Your task to perform on an android device: turn on location history Image 0: 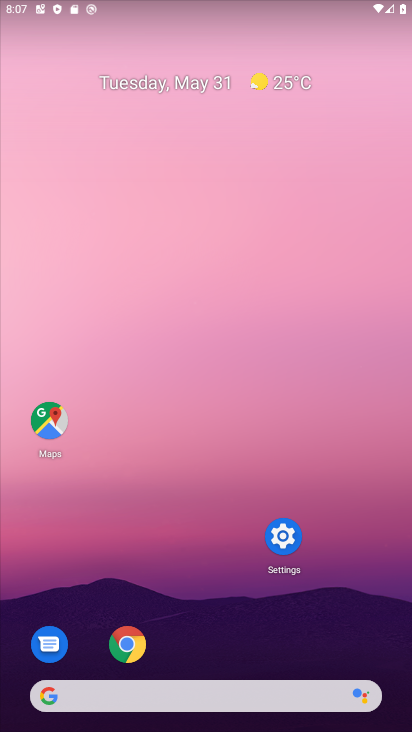
Step 0: click (277, 538)
Your task to perform on an android device: turn on location history Image 1: 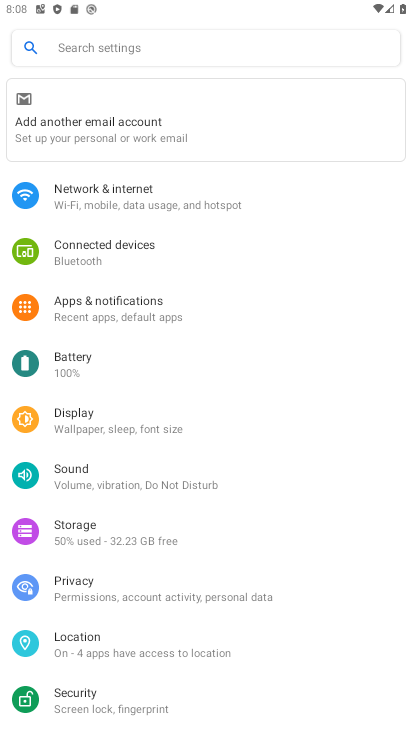
Step 1: click (173, 46)
Your task to perform on an android device: turn on location history Image 2: 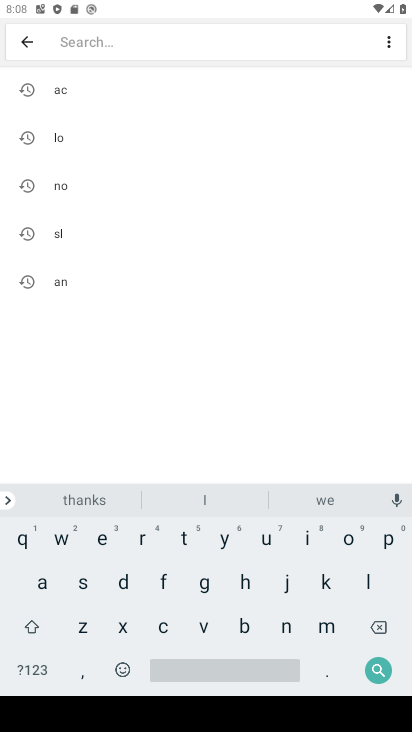
Step 2: click (367, 578)
Your task to perform on an android device: turn on location history Image 3: 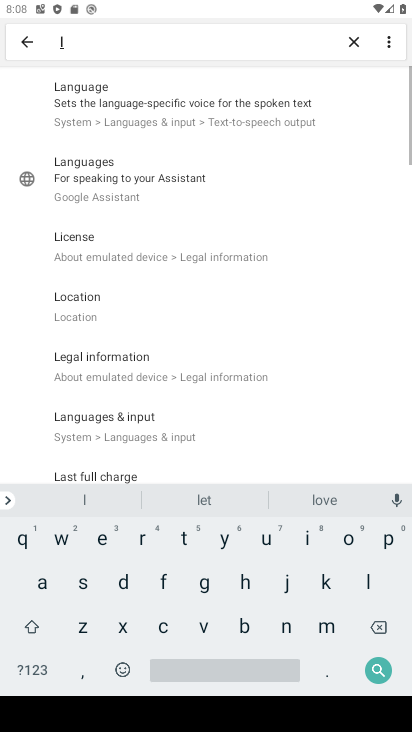
Step 3: click (346, 535)
Your task to perform on an android device: turn on location history Image 4: 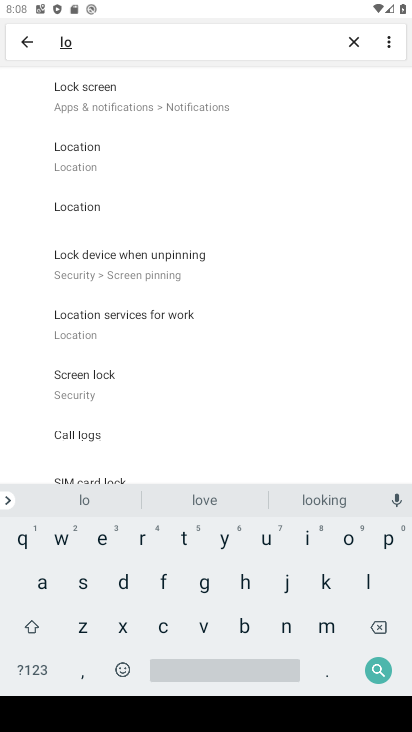
Step 4: click (119, 156)
Your task to perform on an android device: turn on location history Image 5: 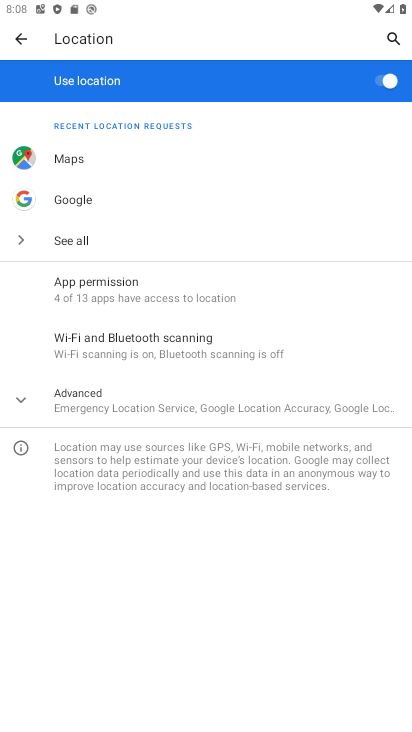
Step 5: click (32, 401)
Your task to perform on an android device: turn on location history Image 6: 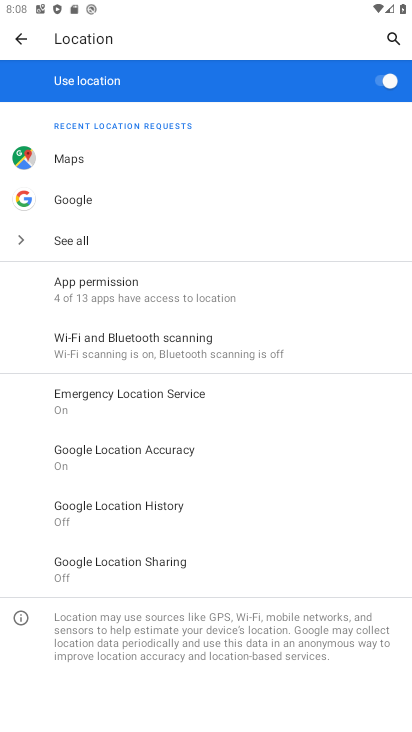
Step 6: click (141, 493)
Your task to perform on an android device: turn on location history Image 7: 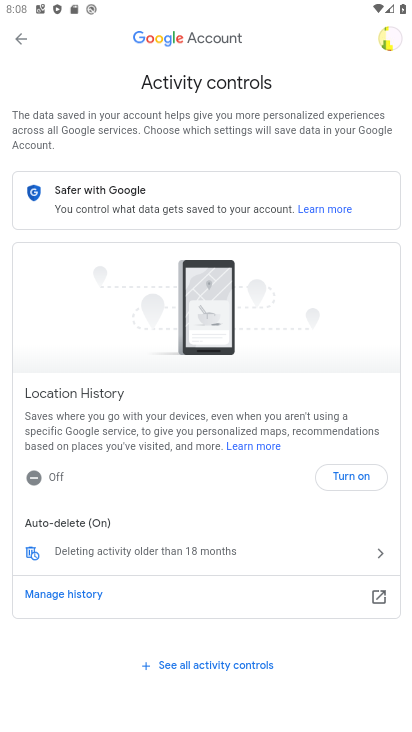
Step 7: task complete